Your task to perform on an android device: Go to Android settings Image 0: 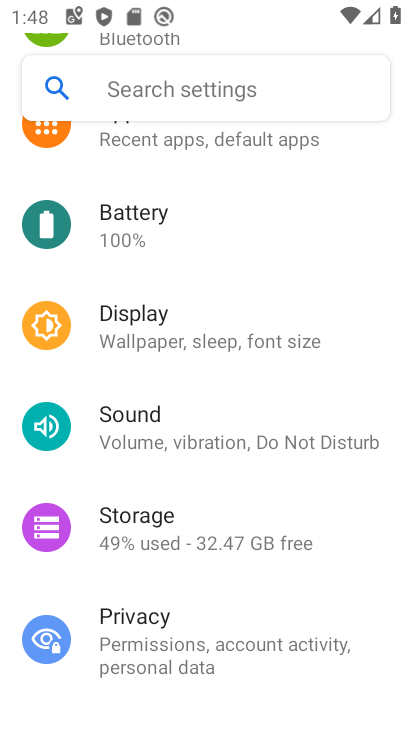
Step 0: task complete